Your task to perform on an android device: Set the phone to "Do not disturb". Image 0: 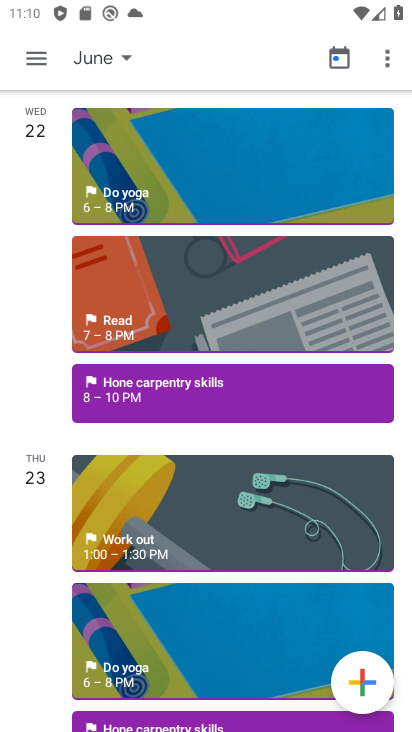
Step 0: press back button
Your task to perform on an android device: Set the phone to "Do not disturb". Image 1: 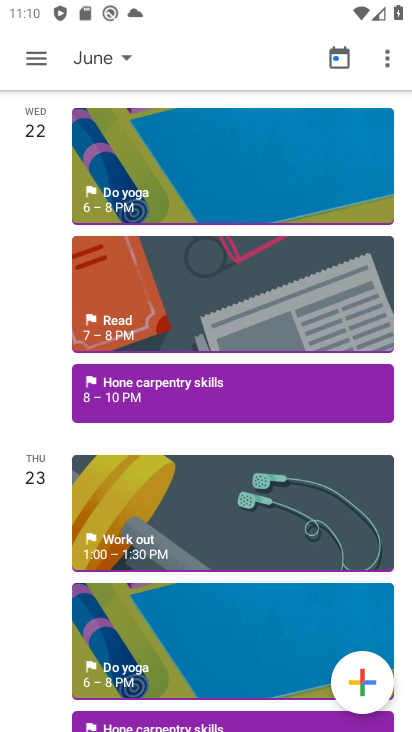
Step 1: press back button
Your task to perform on an android device: Set the phone to "Do not disturb". Image 2: 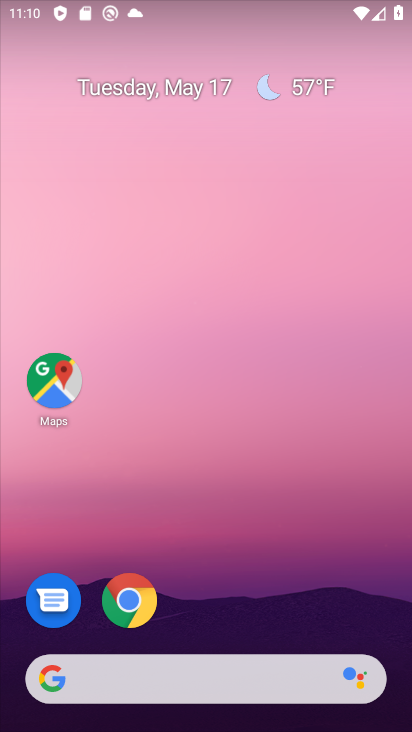
Step 2: drag from (278, 624) to (200, 154)
Your task to perform on an android device: Set the phone to "Do not disturb". Image 3: 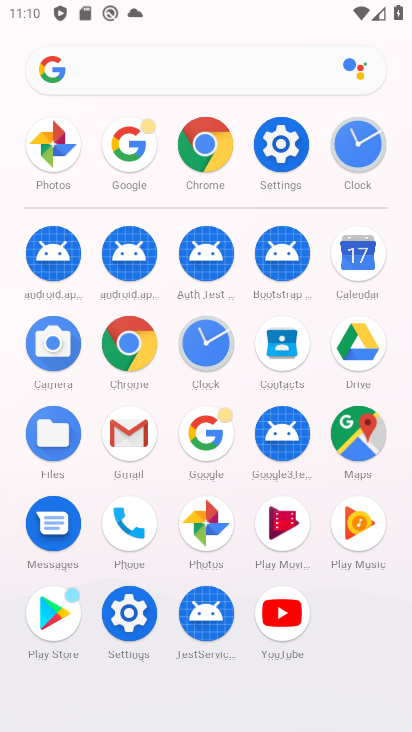
Step 3: click (281, 145)
Your task to perform on an android device: Set the phone to "Do not disturb". Image 4: 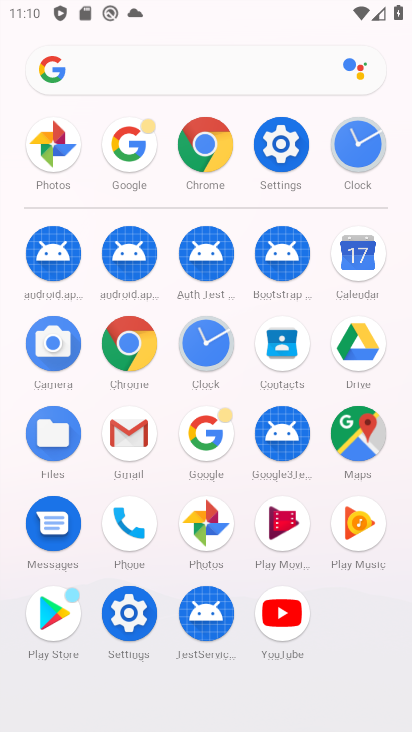
Step 4: click (282, 144)
Your task to perform on an android device: Set the phone to "Do not disturb". Image 5: 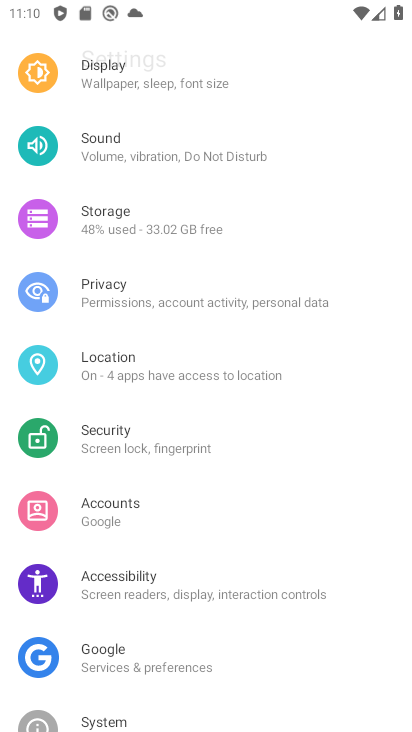
Step 5: click (282, 144)
Your task to perform on an android device: Set the phone to "Do not disturb". Image 6: 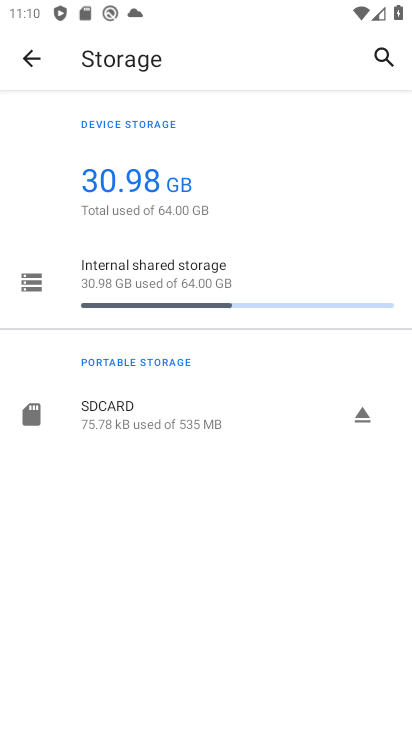
Step 6: click (20, 55)
Your task to perform on an android device: Set the phone to "Do not disturb". Image 7: 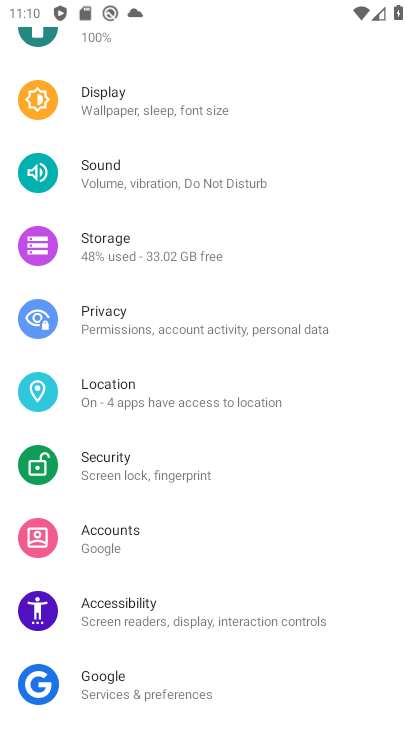
Step 7: click (134, 179)
Your task to perform on an android device: Set the phone to "Do not disturb". Image 8: 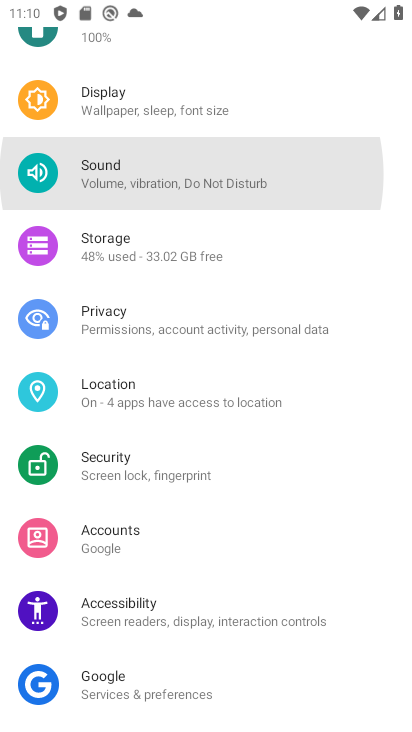
Step 8: click (134, 179)
Your task to perform on an android device: Set the phone to "Do not disturb". Image 9: 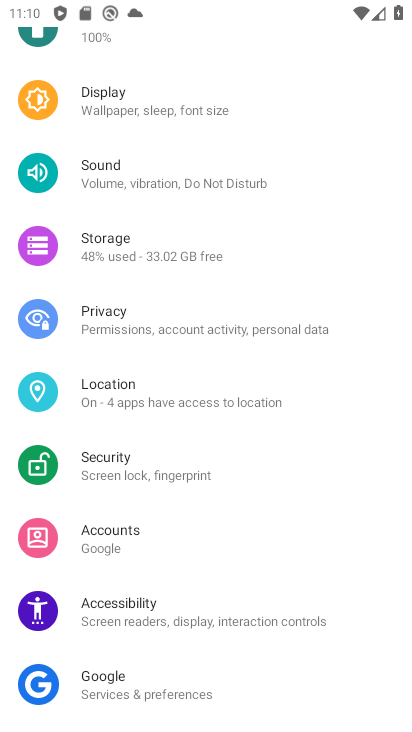
Step 9: click (135, 178)
Your task to perform on an android device: Set the phone to "Do not disturb". Image 10: 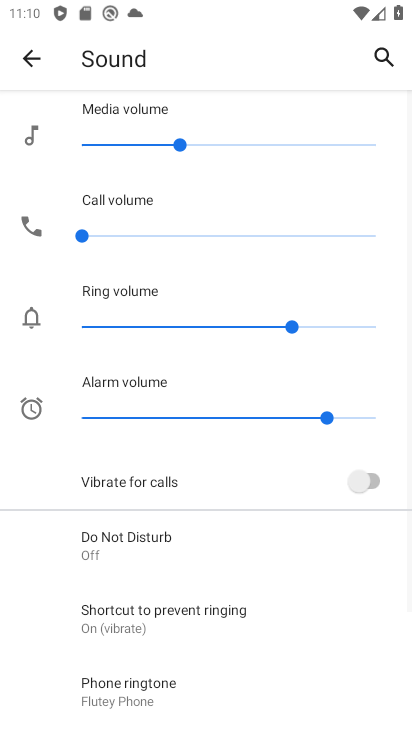
Step 10: drag from (177, 515) to (184, 182)
Your task to perform on an android device: Set the phone to "Do not disturb". Image 11: 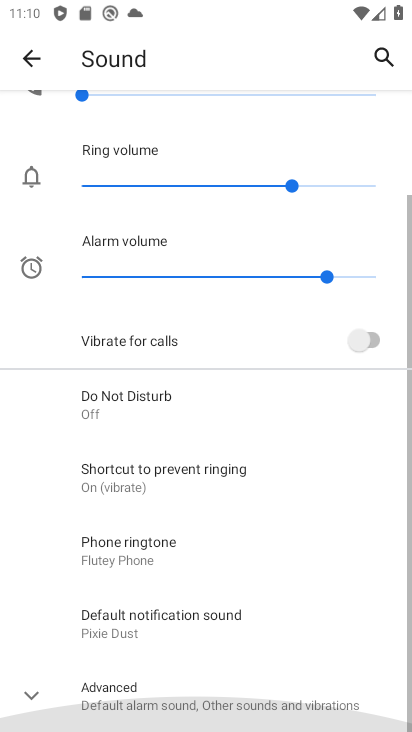
Step 11: drag from (214, 385) to (214, 163)
Your task to perform on an android device: Set the phone to "Do not disturb". Image 12: 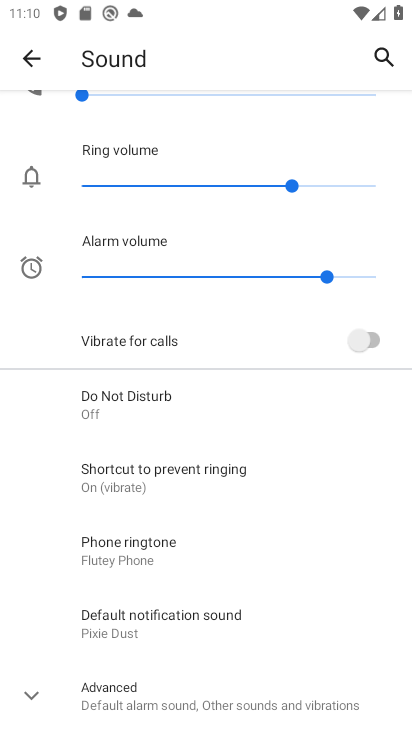
Step 12: click (123, 395)
Your task to perform on an android device: Set the phone to "Do not disturb". Image 13: 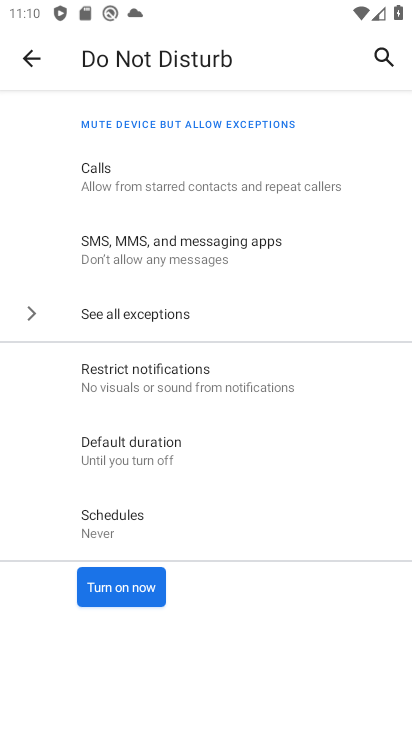
Step 13: click (115, 599)
Your task to perform on an android device: Set the phone to "Do not disturb". Image 14: 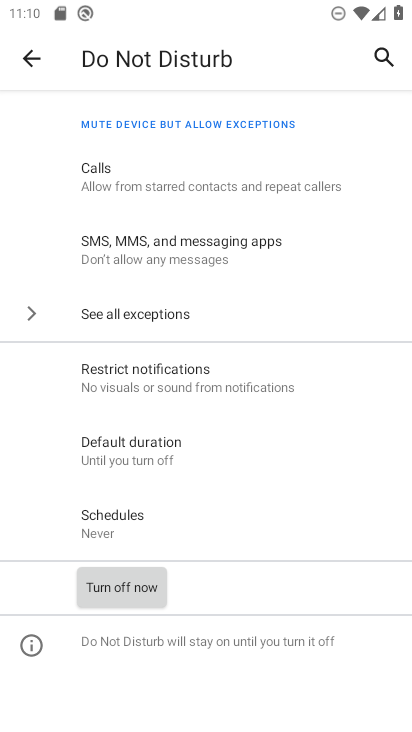
Step 14: task complete